Your task to perform on an android device: Do I have any events tomorrow? Image 0: 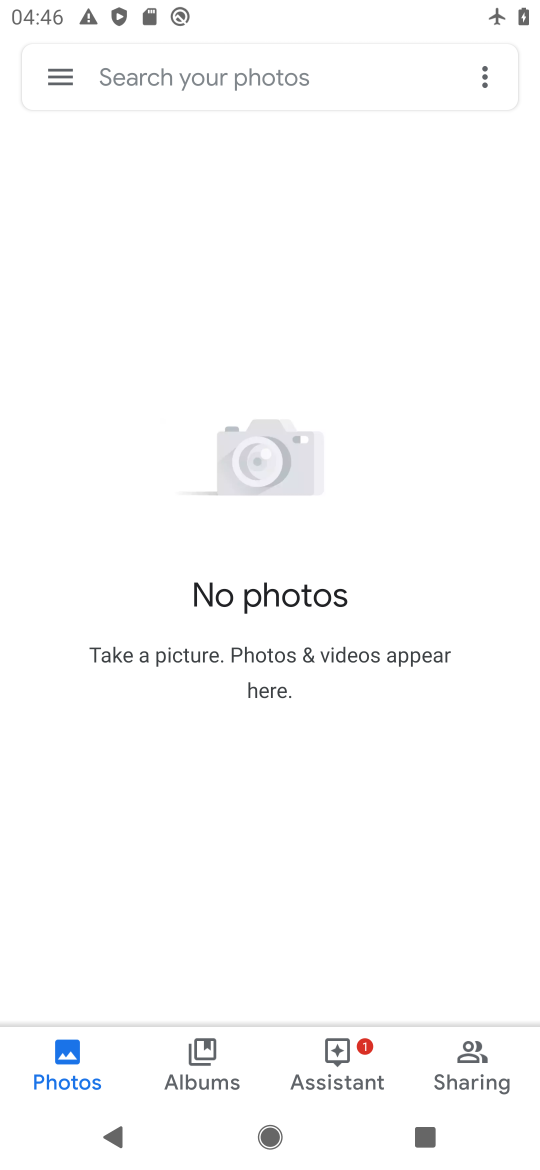
Step 0: press back button
Your task to perform on an android device: Do I have any events tomorrow? Image 1: 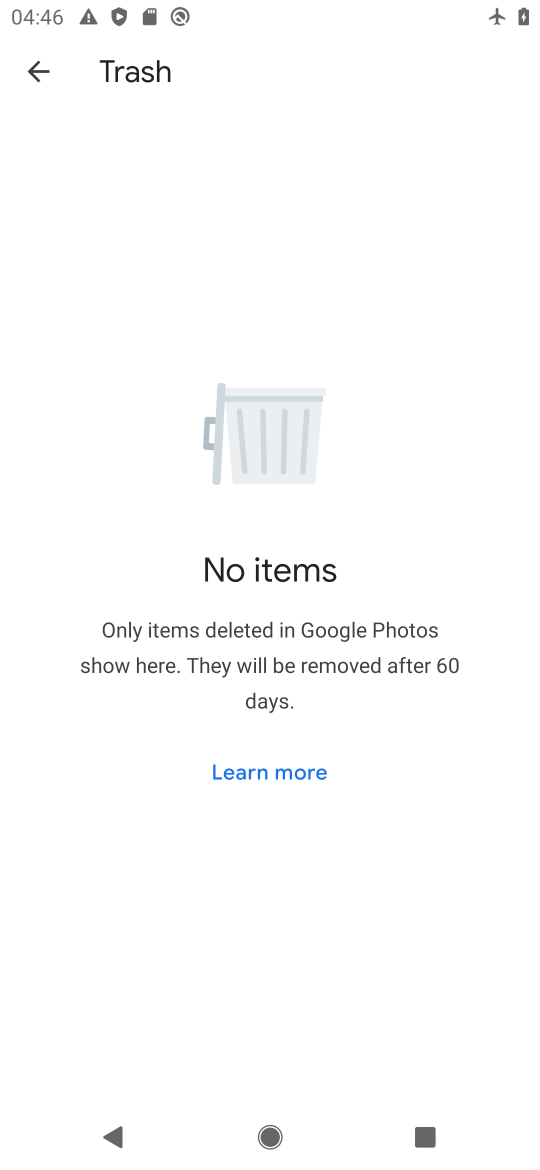
Step 1: press home button
Your task to perform on an android device: Do I have any events tomorrow? Image 2: 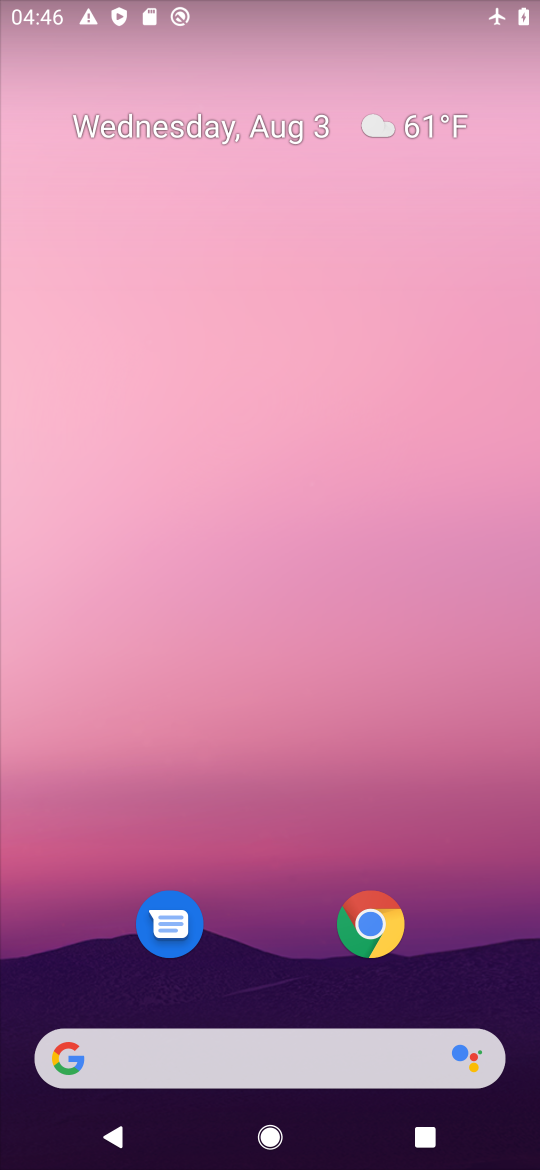
Step 2: drag from (281, 984) to (292, 417)
Your task to perform on an android device: Do I have any events tomorrow? Image 3: 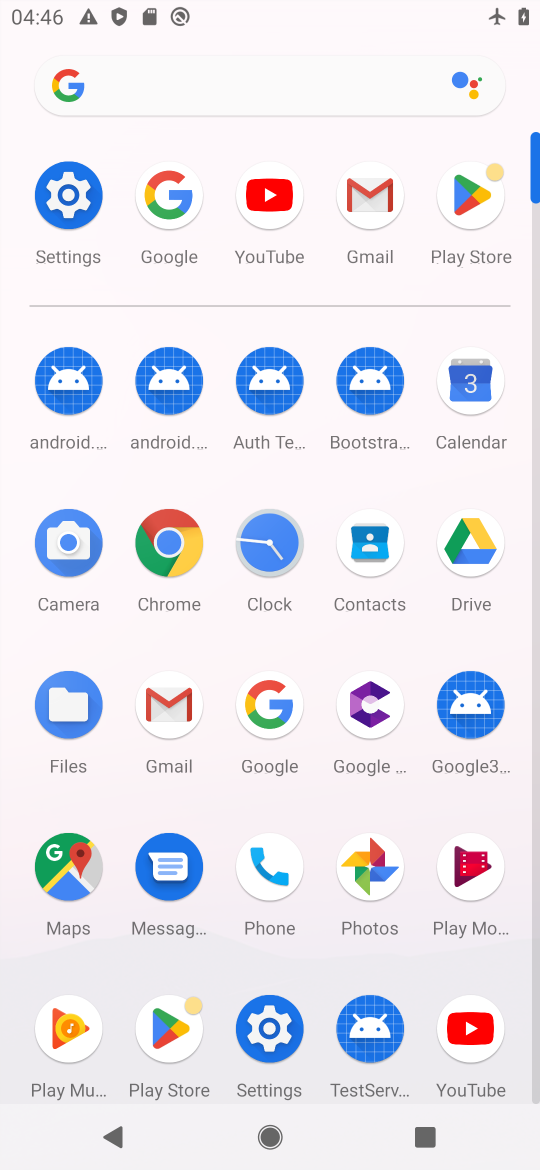
Step 3: click (491, 393)
Your task to perform on an android device: Do I have any events tomorrow? Image 4: 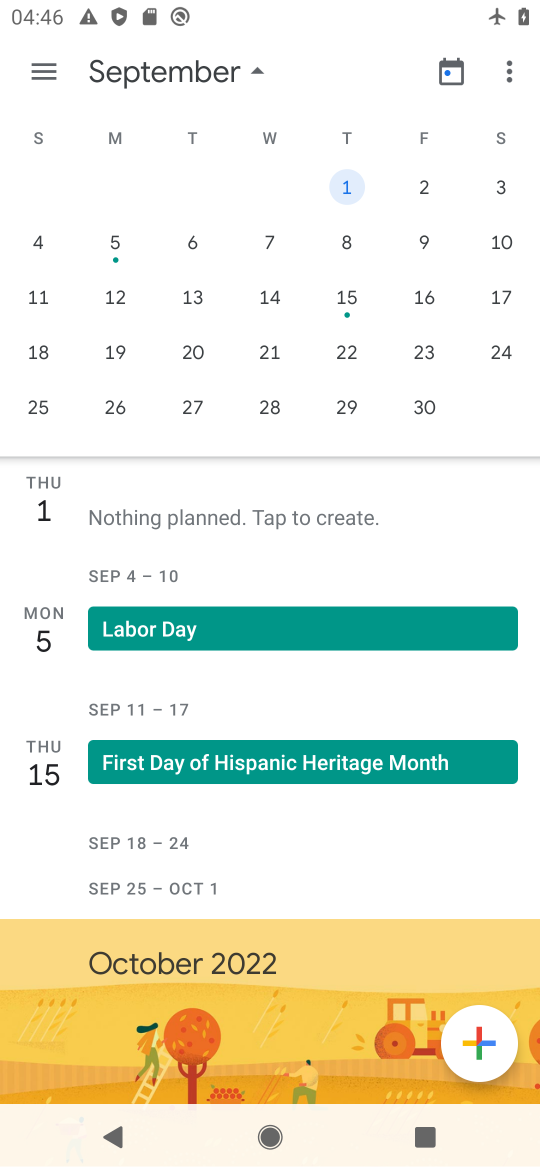
Step 4: drag from (153, 295) to (525, 242)
Your task to perform on an android device: Do I have any events tomorrow? Image 5: 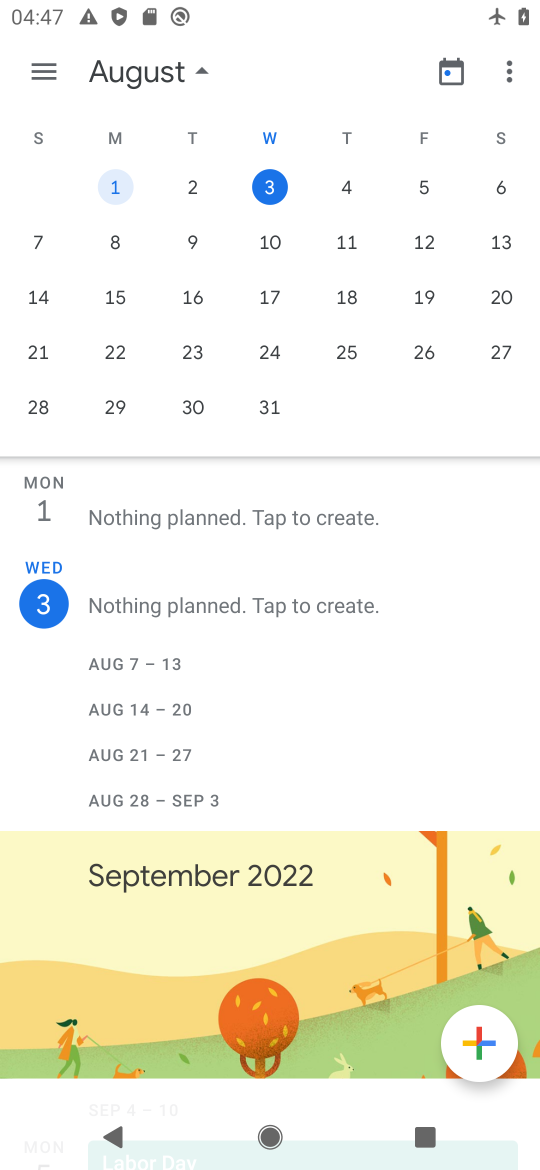
Step 5: click (332, 176)
Your task to perform on an android device: Do I have any events tomorrow? Image 6: 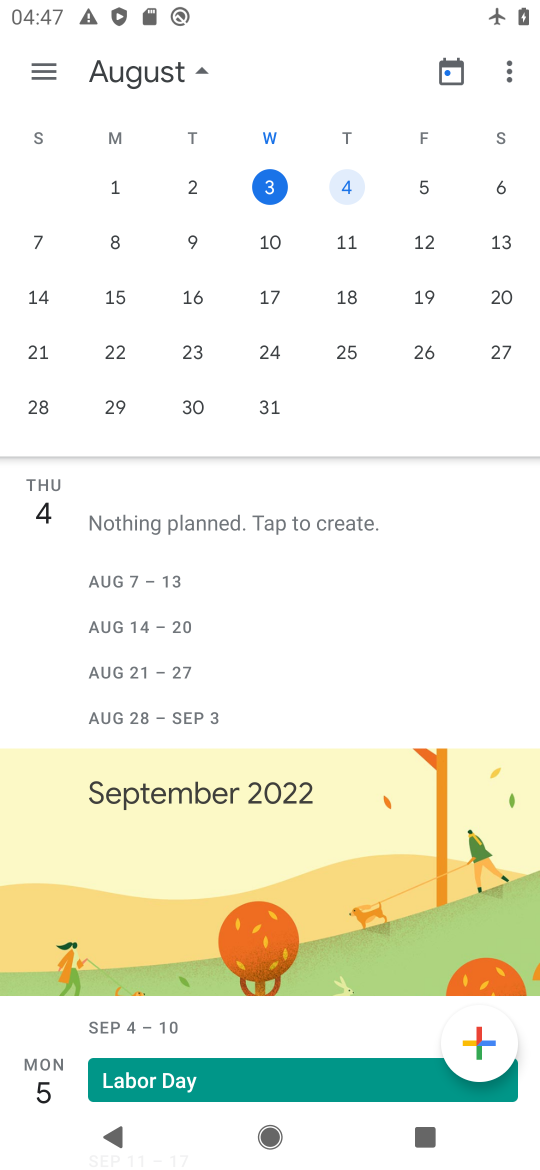
Step 6: click (341, 202)
Your task to perform on an android device: Do I have any events tomorrow? Image 7: 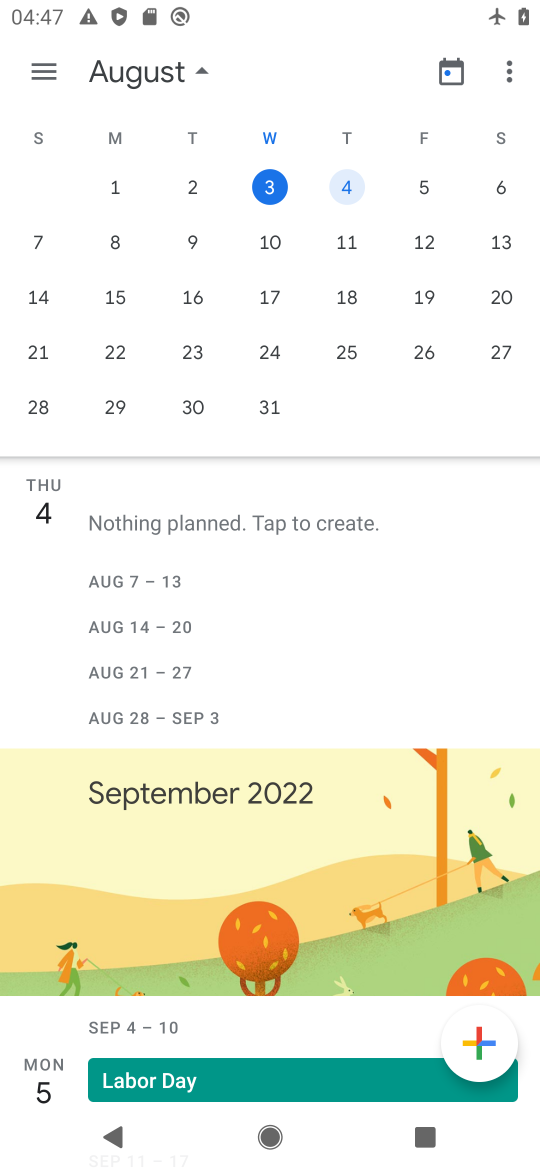
Step 7: task complete